Your task to perform on an android device: Go to Android settings Image 0: 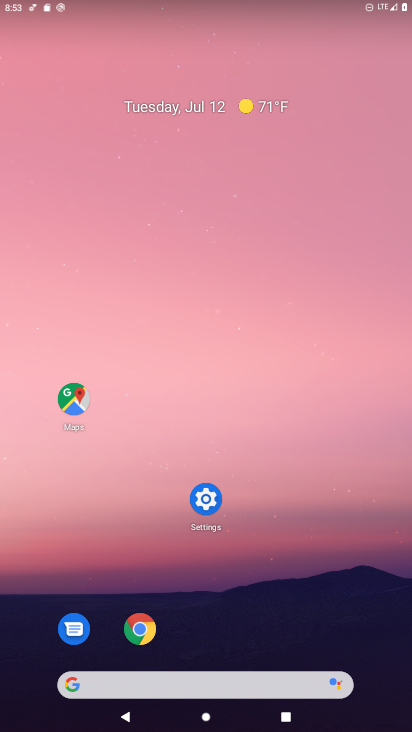
Step 0: click (208, 506)
Your task to perform on an android device: Go to Android settings Image 1: 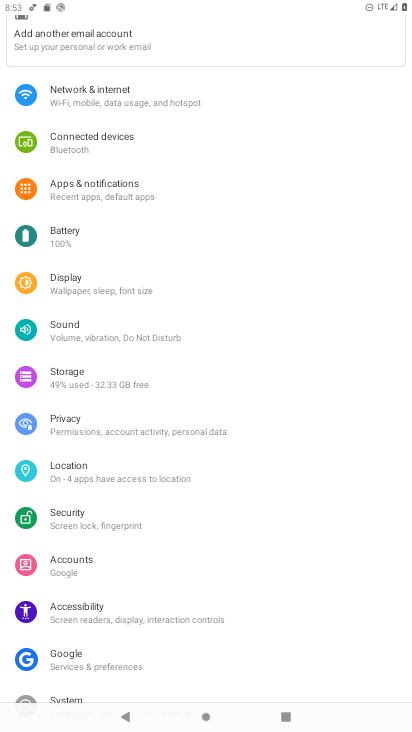
Step 1: click (320, 258)
Your task to perform on an android device: Go to Android settings Image 2: 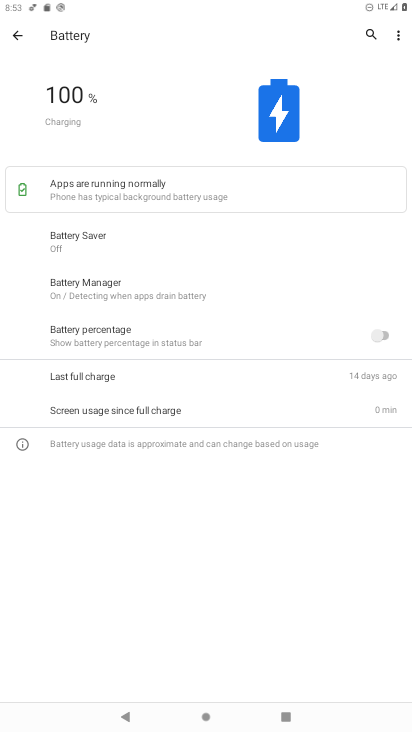
Step 2: click (14, 33)
Your task to perform on an android device: Go to Android settings Image 3: 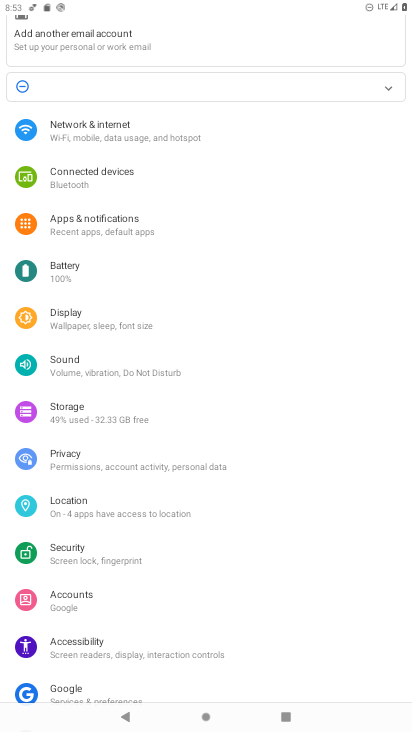
Step 3: task complete